Your task to perform on an android device: Clear all items from cart on bestbuy. Search for dell xps on bestbuy, select the first entry, add it to the cart, then select checkout. Image 0: 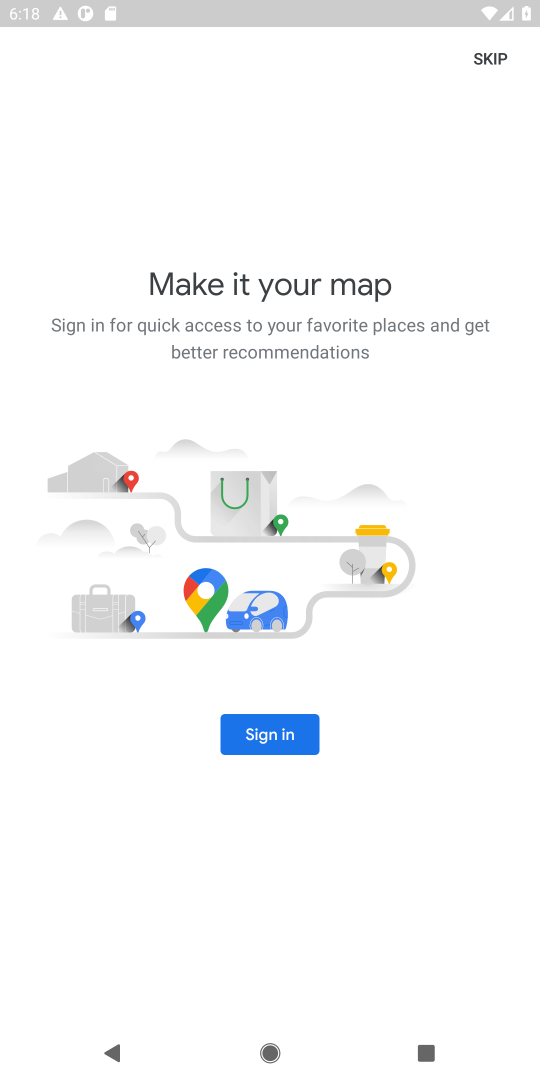
Step 0: press home button
Your task to perform on an android device: Clear all items from cart on bestbuy. Search for dell xps on bestbuy, select the first entry, add it to the cart, then select checkout. Image 1: 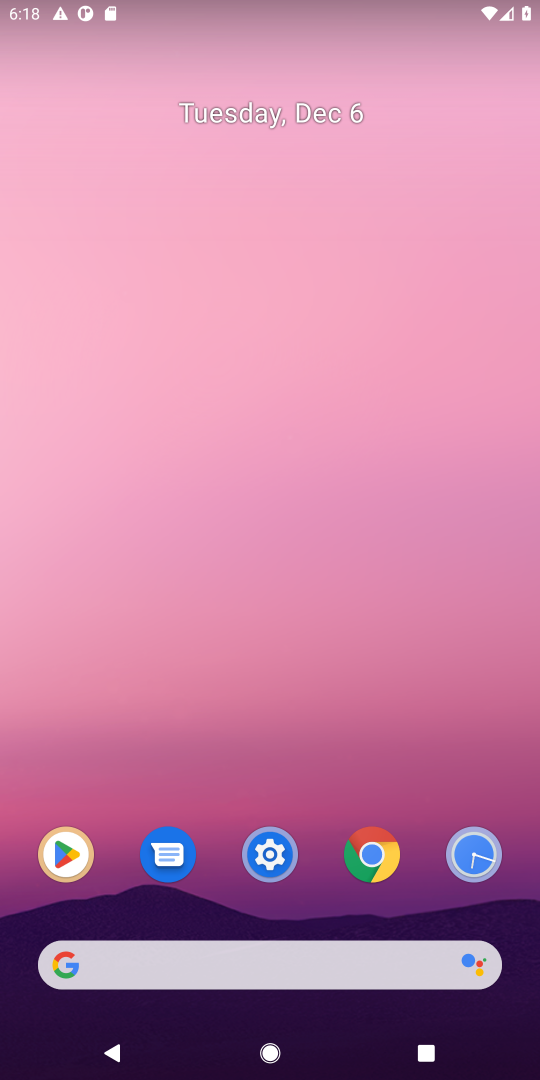
Step 1: click (369, 854)
Your task to perform on an android device: Clear all items from cart on bestbuy. Search for dell xps on bestbuy, select the first entry, add it to the cart, then select checkout. Image 2: 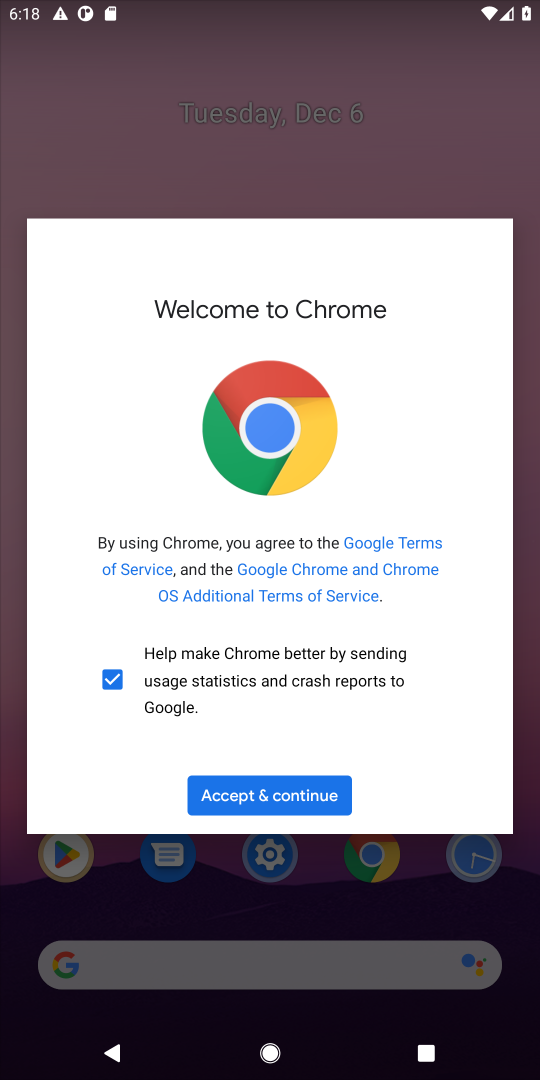
Step 2: click (273, 787)
Your task to perform on an android device: Clear all items from cart on bestbuy. Search for dell xps on bestbuy, select the first entry, add it to the cart, then select checkout. Image 3: 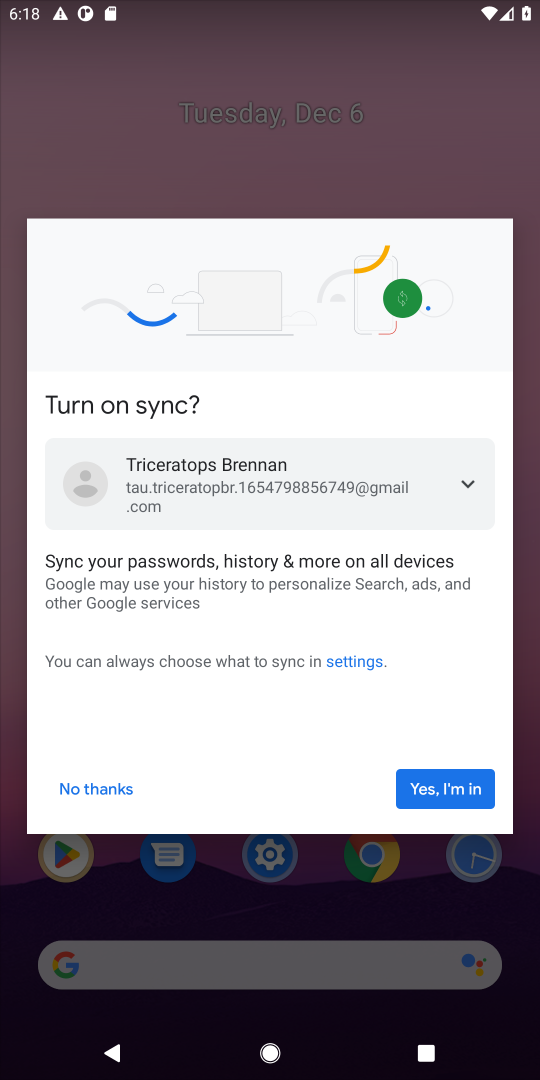
Step 3: click (423, 798)
Your task to perform on an android device: Clear all items from cart on bestbuy. Search for dell xps on bestbuy, select the first entry, add it to the cart, then select checkout. Image 4: 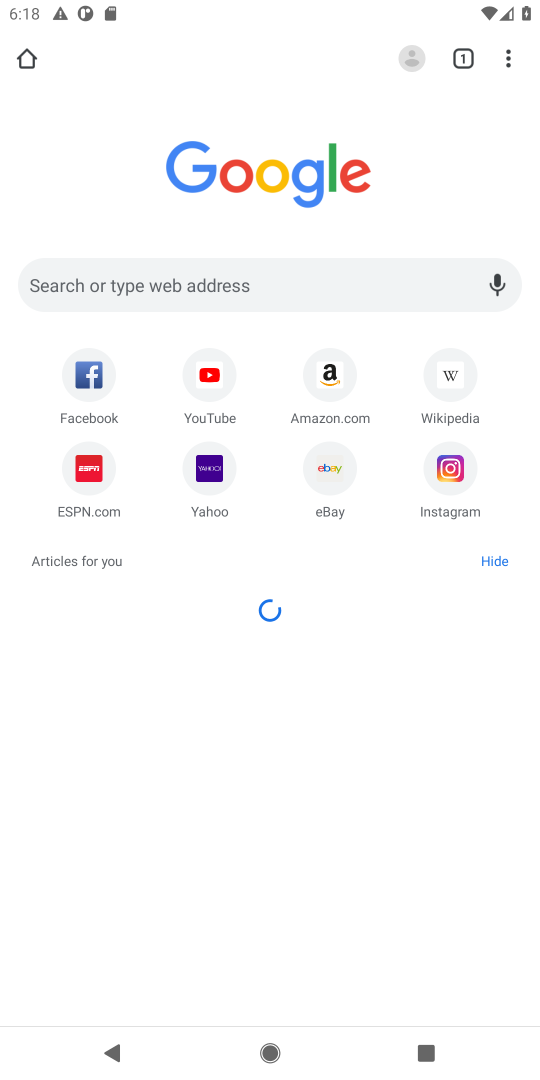
Step 4: click (220, 282)
Your task to perform on an android device: Clear all items from cart on bestbuy. Search for dell xps on bestbuy, select the first entry, add it to the cart, then select checkout. Image 5: 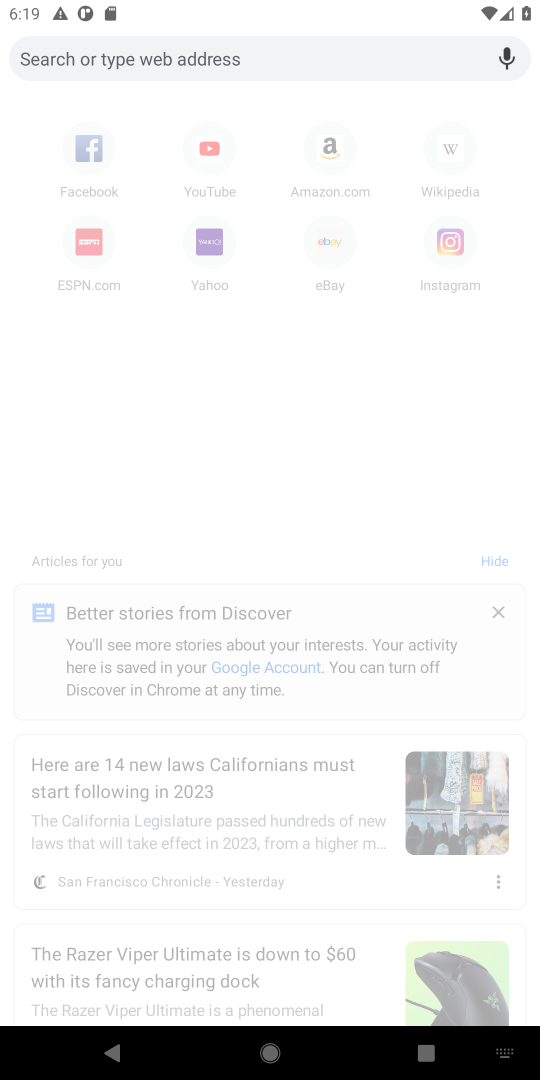
Step 5: type "bestbuy"
Your task to perform on an android device: Clear all items from cart on bestbuy. Search for dell xps on bestbuy, select the first entry, add it to the cart, then select checkout. Image 6: 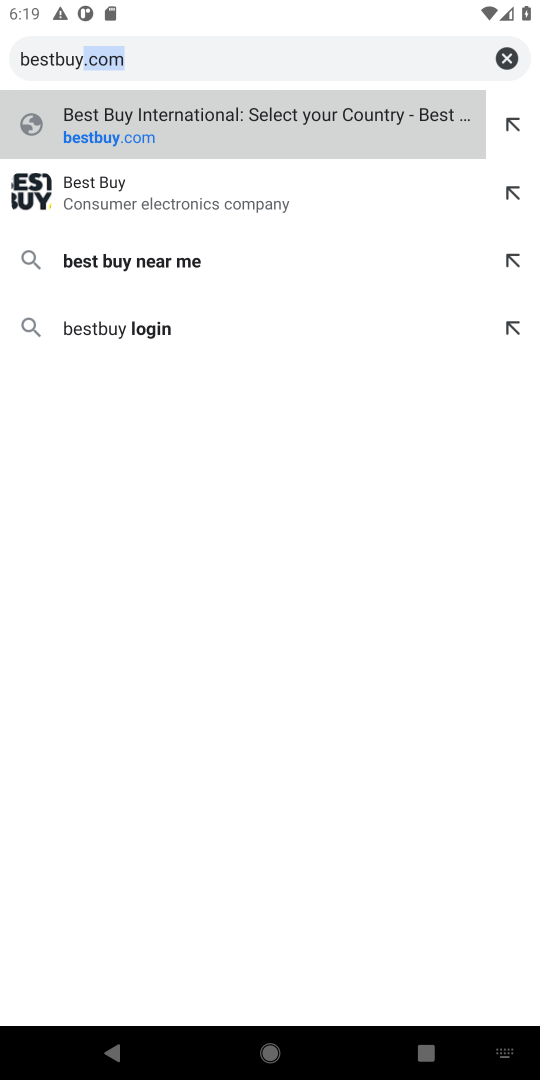
Step 6: click (165, 200)
Your task to perform on an android device: Clear all items from cart on bestbuy. Search for dell xps on bestbuy, select the first entry, add it to the cart, then select checkout. Image 7: 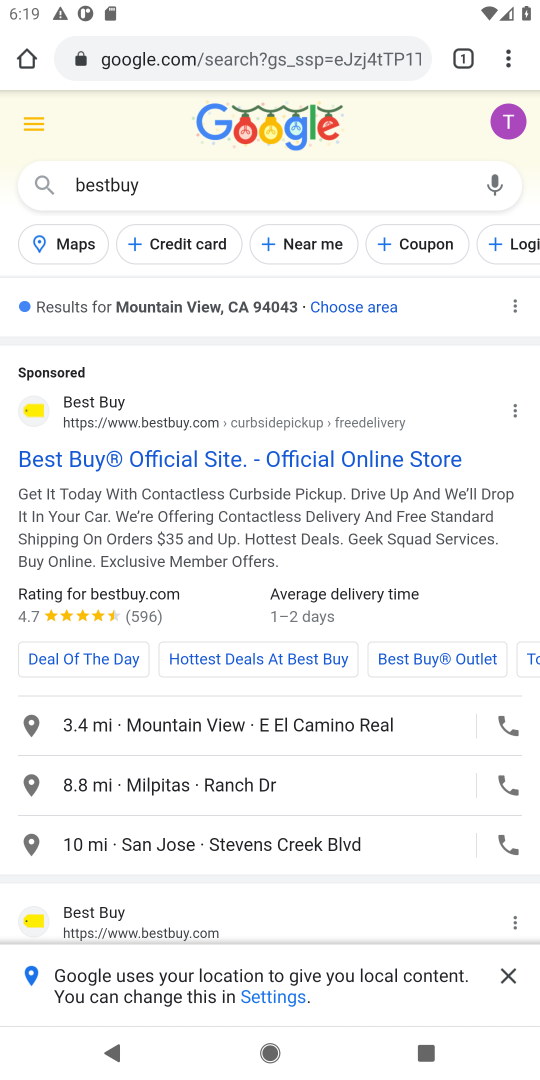
Step 7: click (97, 908)
Your task to perform on an android device: Clear all items from cart on bestbuy. Search for dell xps on bestbuy, select the first entry, add it to the cart, then select checkout. Image 8: 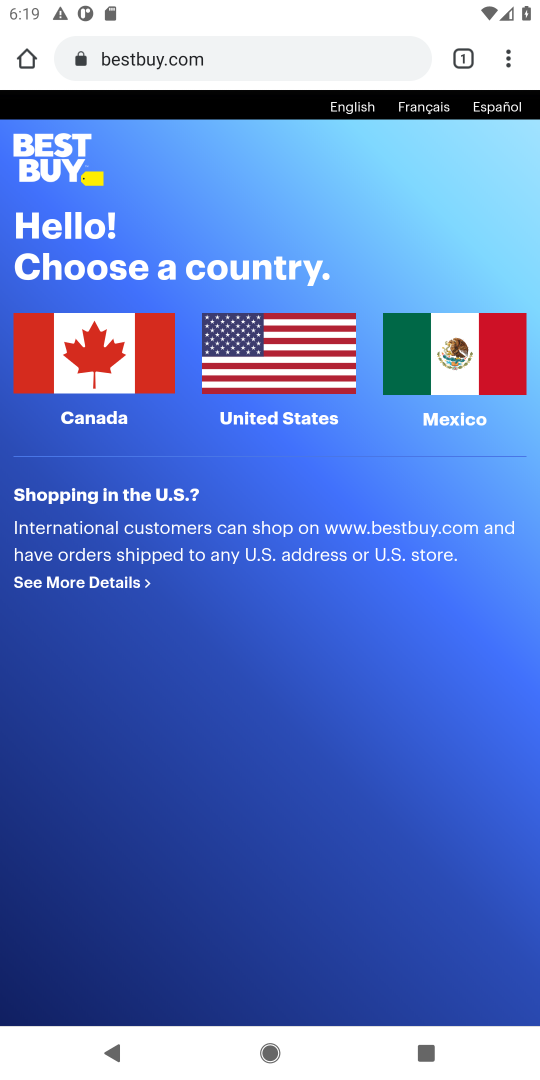
Step 8: click (278, 350)
Your task to perform on an android device: Clear all items from cart on bestbuy. Search for dell xps on bestbuy, select the first entry, add it to the cart, then select checkout. Image 9: 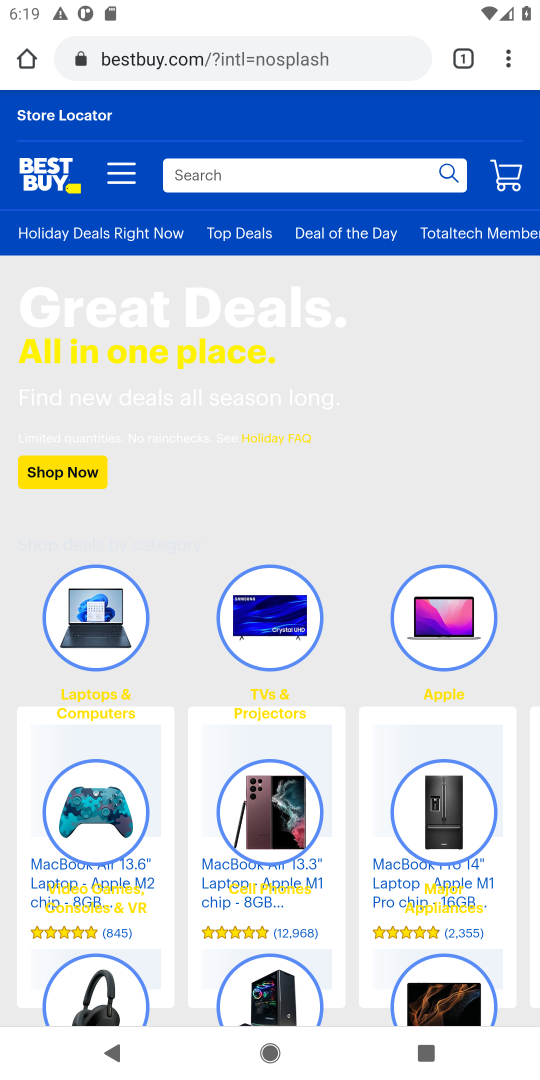
Step 9: click (221, 179)
Your task to perform on an android device: Clear all items from cart on bestbuy. Search for dell xps on bestbuy, select the first entry, add it to the cart, then select checkout. Image 10: 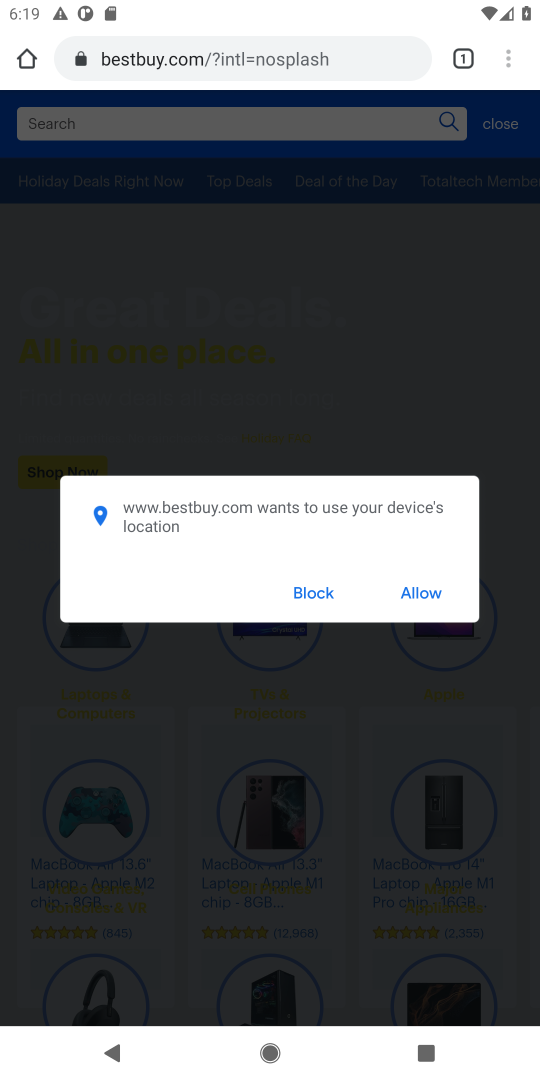
Step 10: type "dell xps"
Your task to perform on an android device: Clear all items from cart on bestbuy. Search for dell xps on bestbuy, select the first entry, add it to the cart, then select checkout. Image 11: 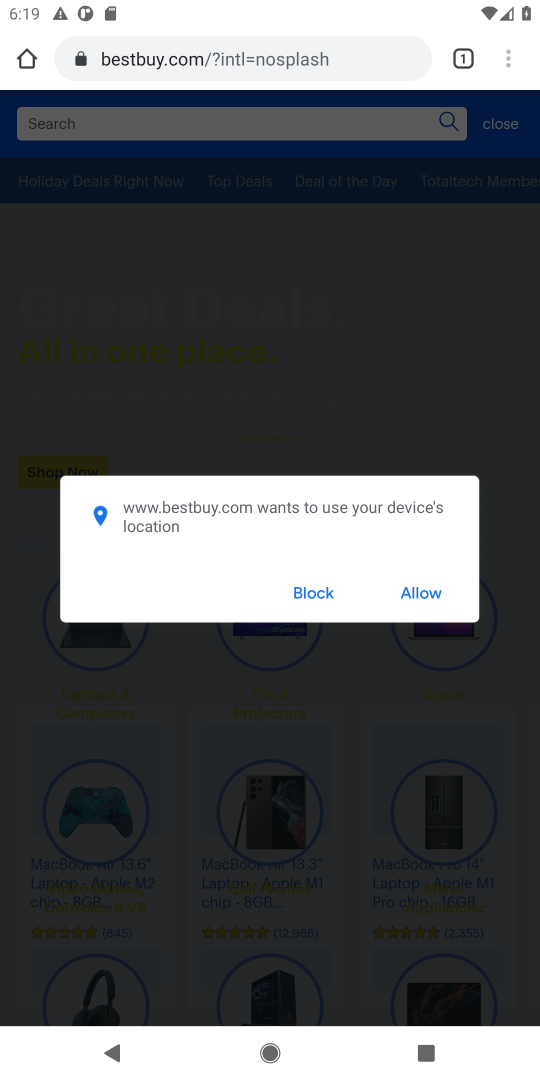
Step 11: click (320, 589)
Your task to perform on an android device: Clear all items from cart on bestbuy. Search for dell xps on bestbuy, select the first entry, add it to the cart, then select checkout. Image 12: 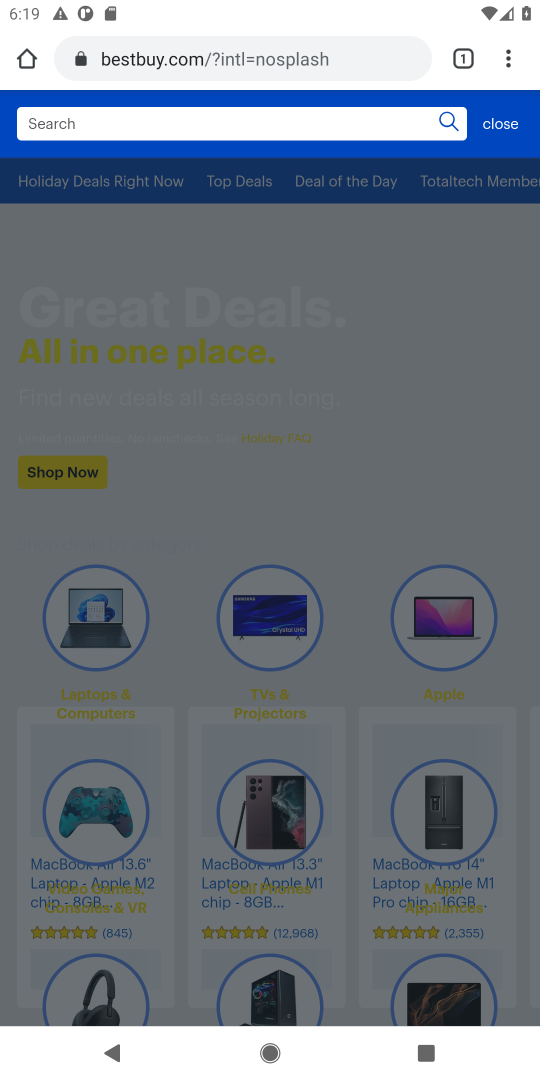
Step 12: click (146, 135)
Your task to perform on an android device: Clear all items from cart on bestbuy. Search for dell xps on bestbuy, select the first entry, add it to the cart, then select checkout. Image 13: 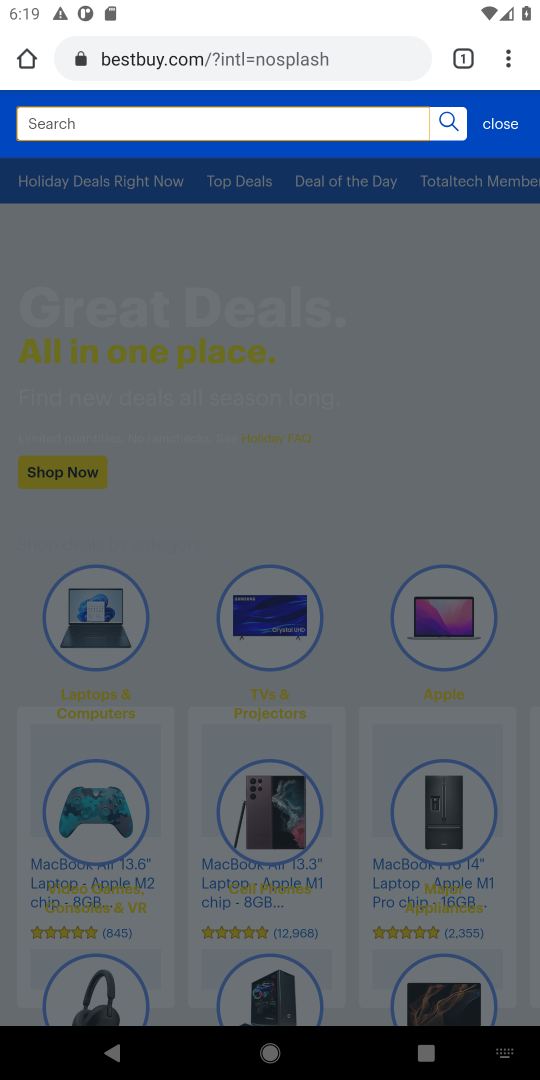
Step 13: type "dell xps"
Your task to perform on an android device: Clear all items from cart on bestbuy. Search for dell xps on bestbuy, select the first entry, add it to the cart, then select checkout. Image 14: 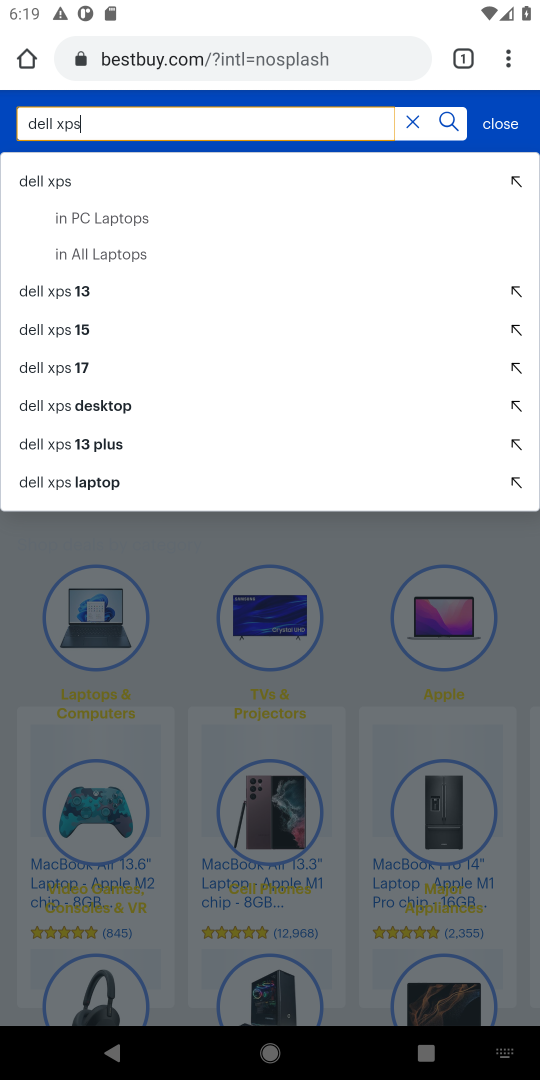
Step 14: click (29, 183)
Your task to perform on an android device: Clear all items from cart on bestbuy. Search for dell xps on bestbuy, select the first entry, add it to the cart, then select checkout. Image 15: 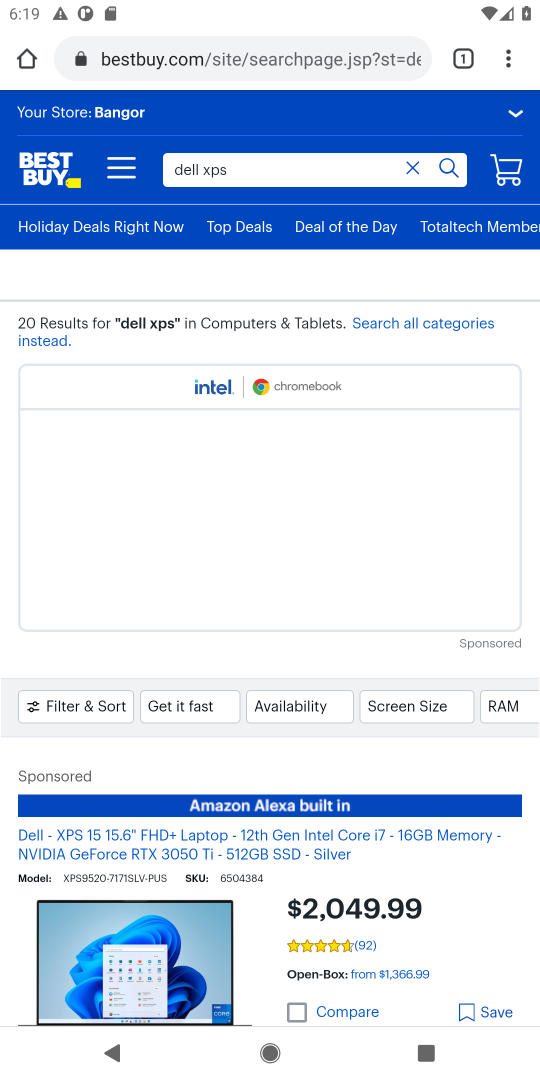
Step 15: drag from (416, 939) to (417, 686)
Your task to perform on an android device: Clear all items from cart on bestbuy. Search for dell xps on bestbuy, select the first entry, add it to the cart, then select checkout. Image 16: 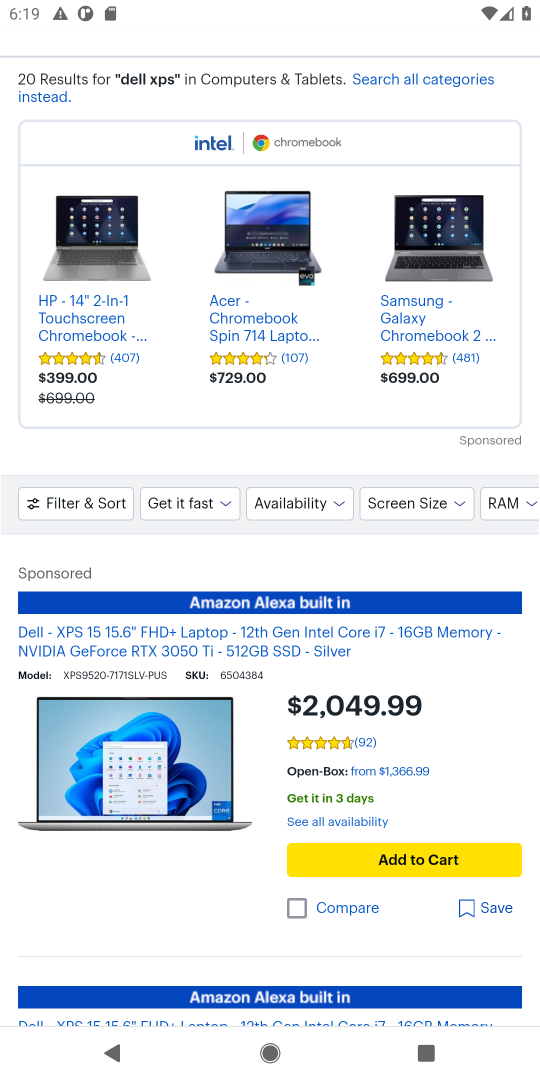
Step 16: click (410, 854)
Your task to perform on an android device: Clear all items from cart on bestbuy. Search for dell xps on bestbuy, select the first entry, add it to the cart, then select checkout. Image 17: 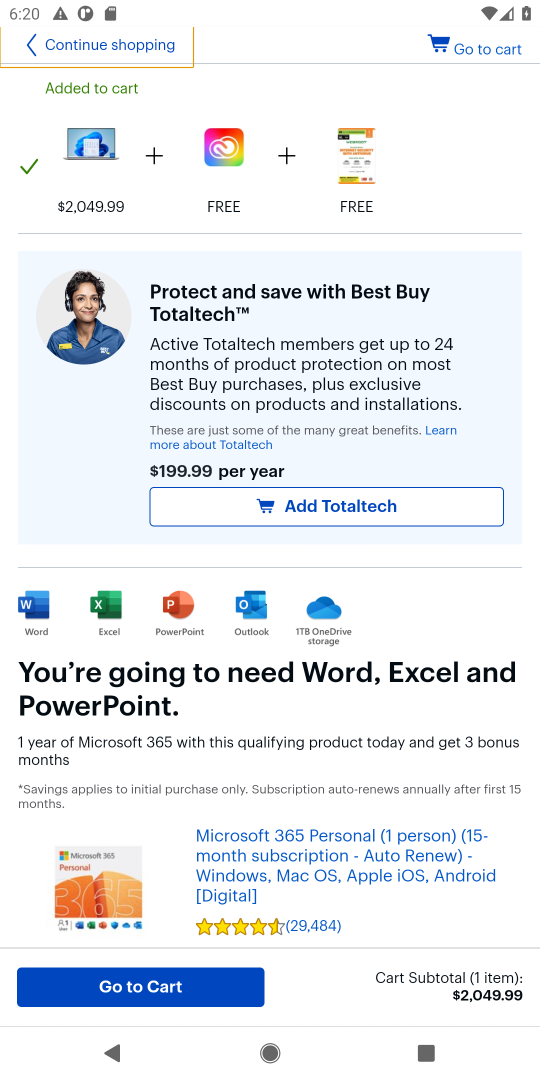
Step 17: task complete